Your task to perform on an android device: Open calendar and show me the fourth week of next month Image 0: 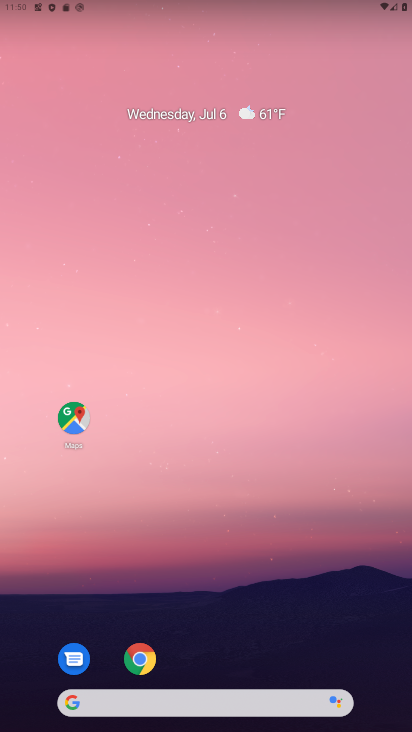
Step 0: drag from (273, 596) to (262, 57)
Your task to perform on an android device: Open calendar and show me the fourth week of next month Image 1: 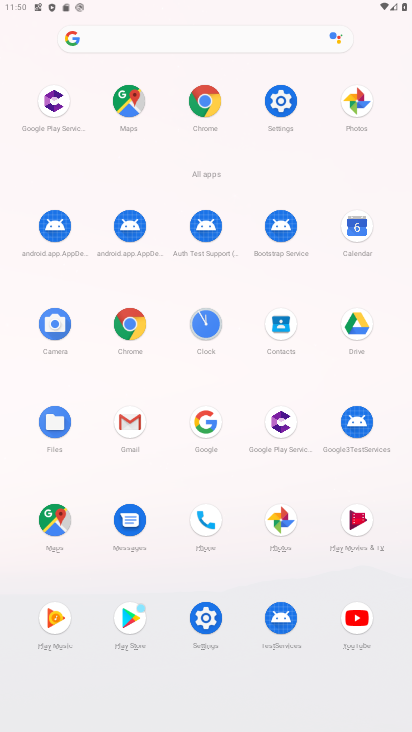
Step 1: click (359, 233)
Your task to perform on an android device: Open calendar and show me the fourth week of next month Image 2: 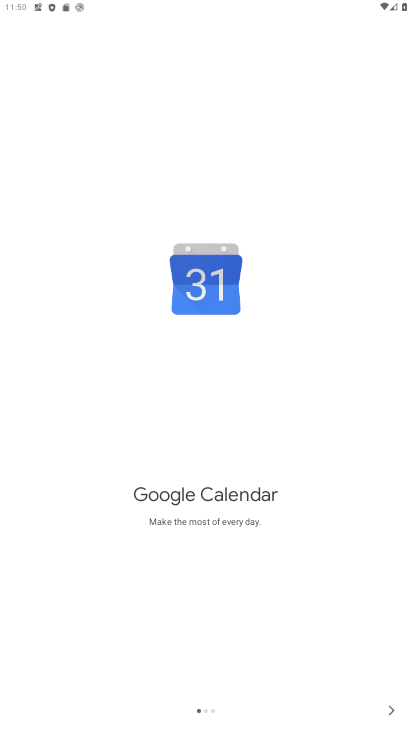
Step 2: click (392, 705)
Your task to perform on an android device: Open calendar and show me the fourth week of next month Image 3: 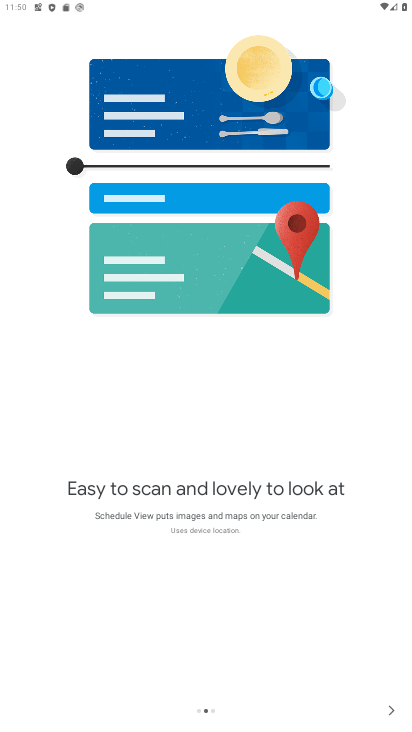
Step 3: click (392, 705)
Your task to perform on an android device: Open calendar and show me the fourth week of next month Image 4: 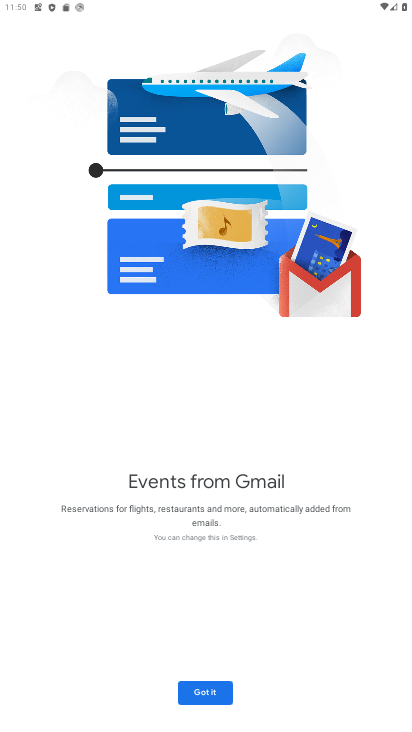
Step 4: click (196, 686)
Your task to perform on an android device: Open calendar and show me the fourth week of next month Image 5: 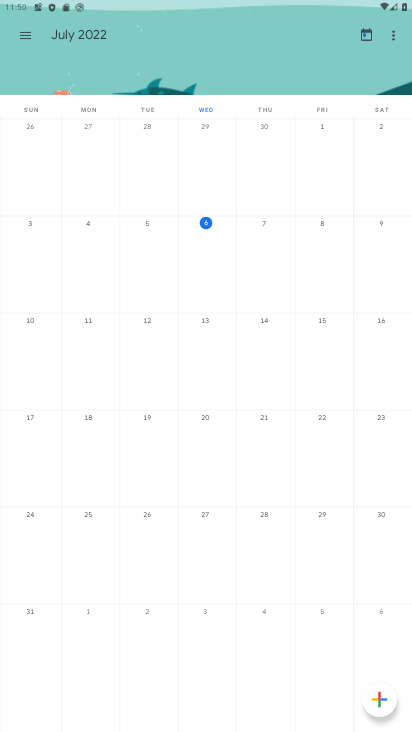
Step 5: click (25, 40)
Your task to perform on an android device: Open calendar and show me the fourth week of next month Image 6: 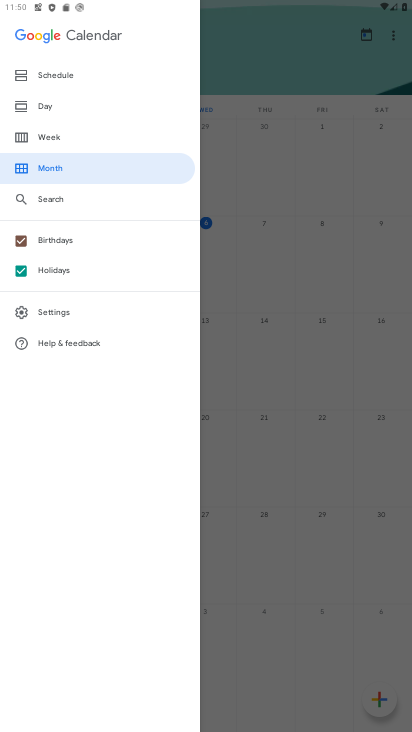
Step 6: click (43, 134)
Your task to perform on an android device: Open calendar and show me the fourth week of next month Image 7: 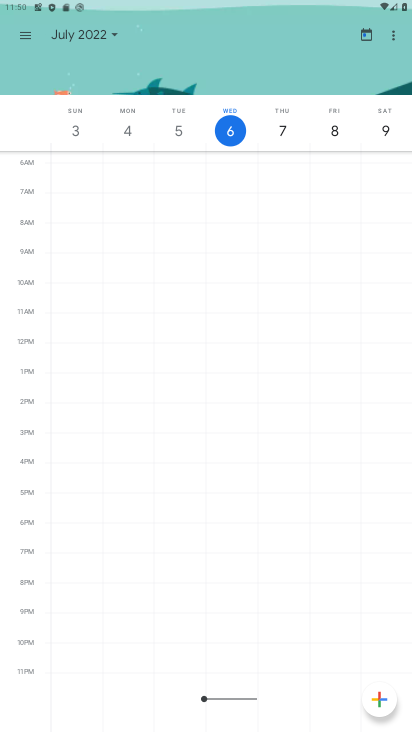
Step 7: click (110, 28)
Your task to perform on an android device: Open calendar and show me the fourth week of next month Image 8: 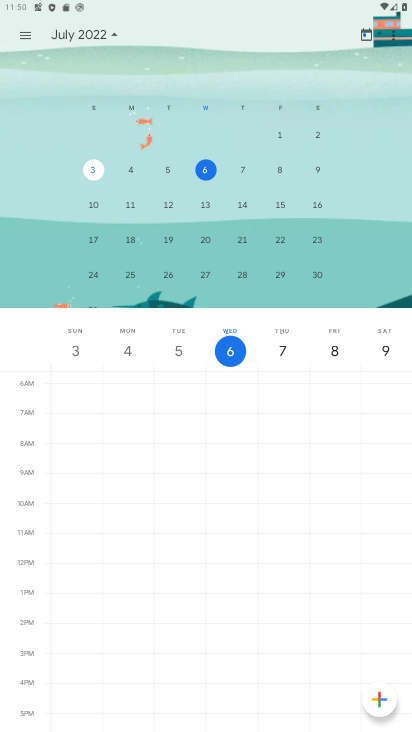
Step 8: drag from (329, 196) to (30, 217)
Your task to perform on an android device: Open calendar and show me the fourth week of next month Image 9: 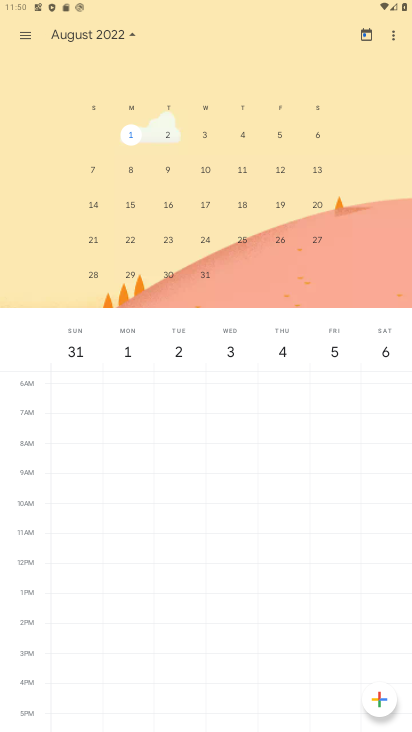
Step 9: click (129, 239)
Your task to perform on an android device: Open calendar and show me the fourth week of next month Image 10: 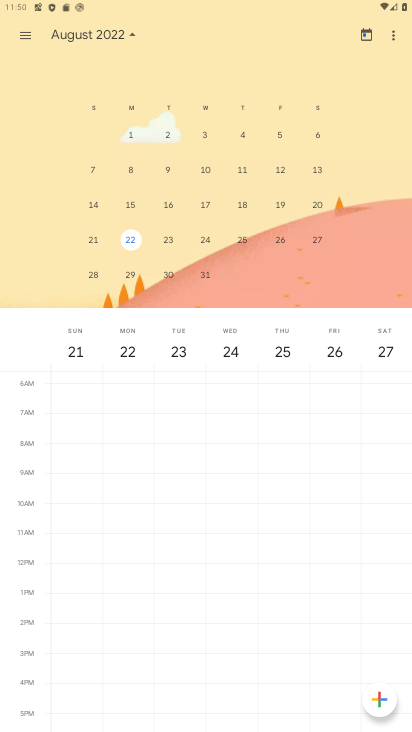
Step 10: task complete